Your task to perform on an android device: uninstall "ColorNote Notepad Notes" Image 0: 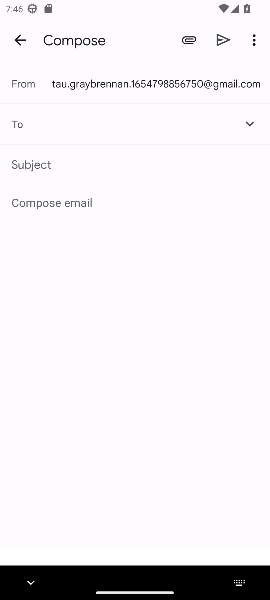
Step 0: press home button
Your task to perform on an android device: uninstall "ColorNote Notepad Notes" Image 1: 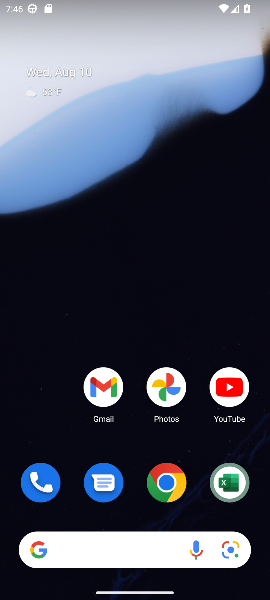
Step 1: drag from (144, 507) to (183, 32)
Your task to perform on an android device: uninstall "ColorNote Notepad Notes" Image 2: 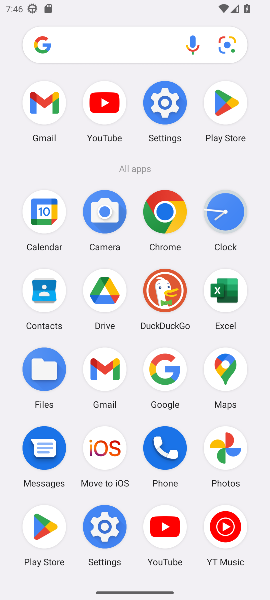
Step 2: click (237, 111)
Your task to perform on an android device: uninstall "ColorNote Notepad Notes" Image 3: 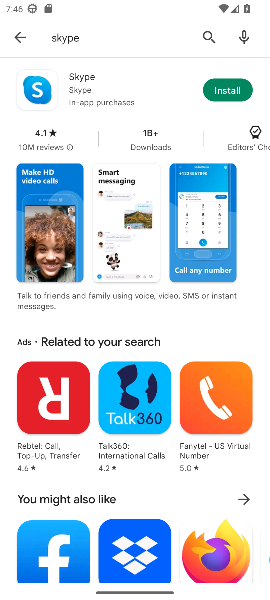
Step 3: click (108, 32)
Your task to perform on an android device: uninstall "ColorNote Notepad Notes" Image 4: 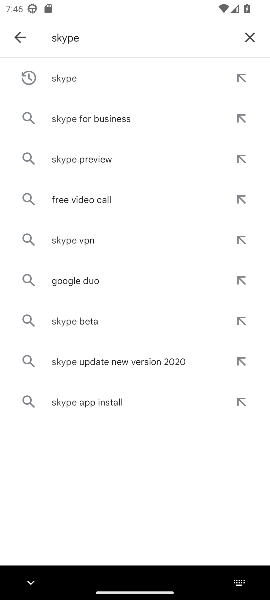
Step 4: click (247, 38)
Your task to perform on an android device: uninstall "ColorNote Notepad Notes" Image 5: 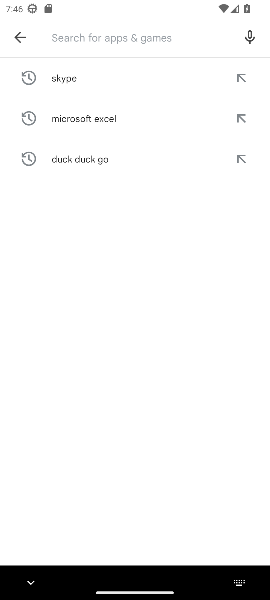
Step 5: type "colornote Notepad Notes"
Your task to perform on an android device: uninstall "ColorNote Notepad Notes" Image 6: 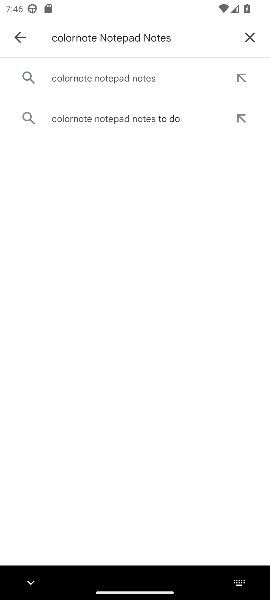
Step 6: click (118, 79)
Your task to perform on an android device: uninstall "ColorNote Notepad Notes" Image 7: 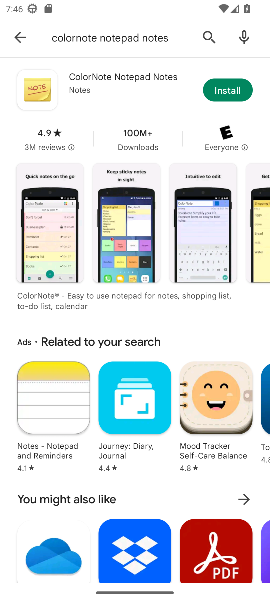
Step 7: task complete